Your task to perform on an android device: What's the weather going to be this weekend? Image 0: 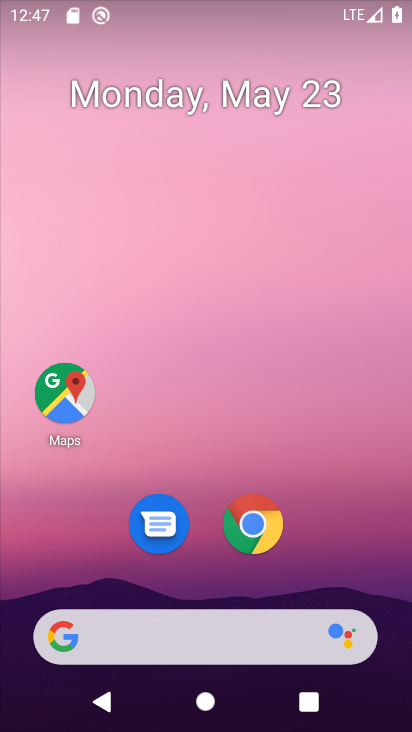
Step 0: click (169, 639)
Your task to perform on an android device: What's the weather going to be this weekend? Image 1: 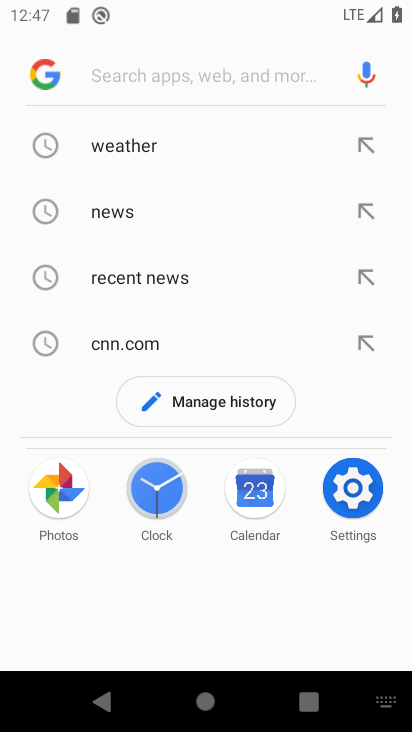
Step 1: click (145, 149)
Your task to perform on an android device: What's the weather going to be this weekend? Image 2: 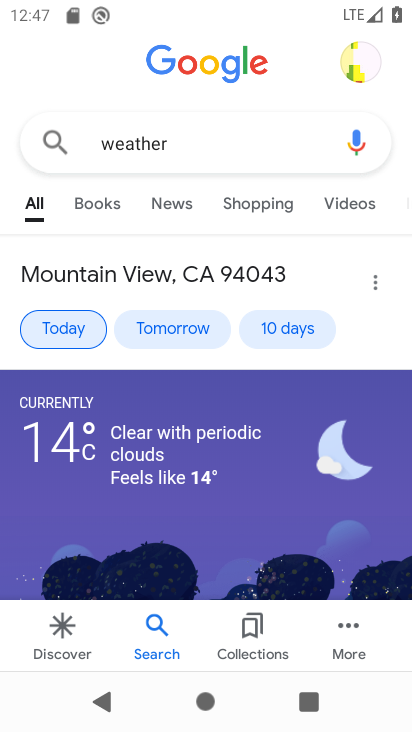
Step 2: click (87, 323)
Your task to perform on an android device: What's the weather going to be this weekend? Image 3: 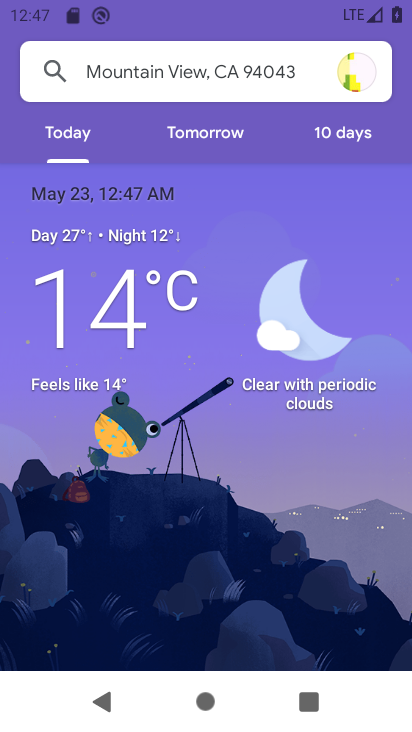
Step 3: click (338, 142)
Your task to perform on an android device: What's the weather going to be this weekend? Image 4: 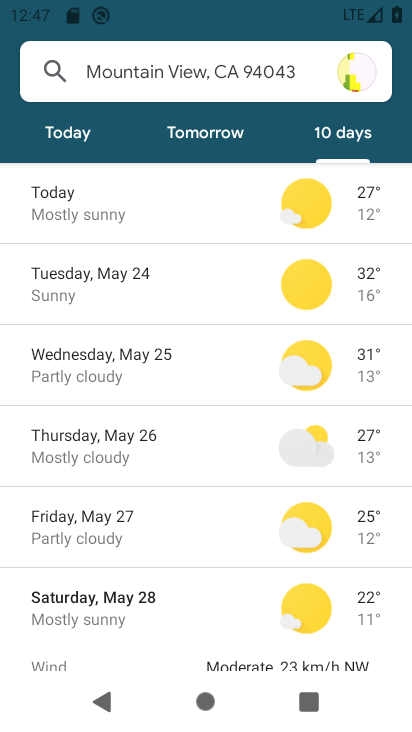
Step 4: click (146, 607)
Your task to perform on an android device: What's the weather going to be this weekend? Image 5: 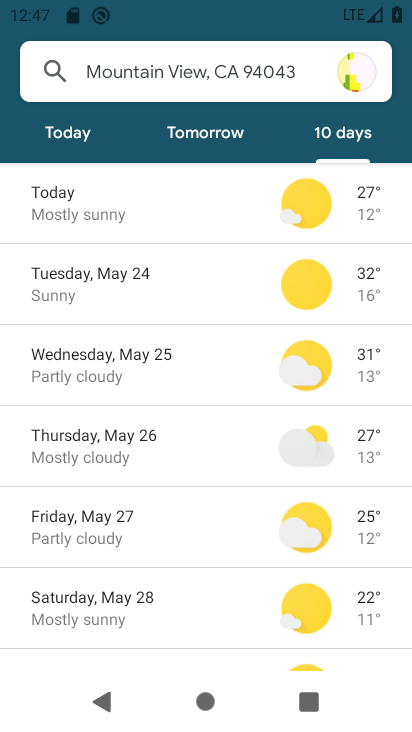
Step 5: click (149, 608)
Your task to perform on an android device: What's the weather going to be this weekend? Image 6: 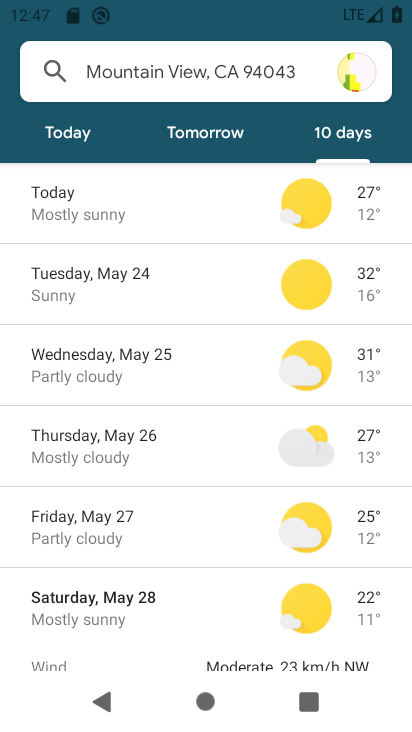
Step 6: task complete